Your task to perform on an android device: Open Reddit.com Image 0: 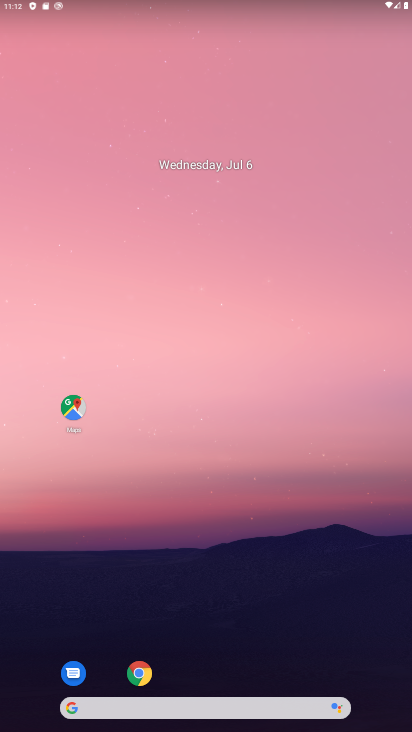
Step 0: drag from (275, 559) to (287, 29)
Your task to perform on an android device: Open Reddit.com Image 1: 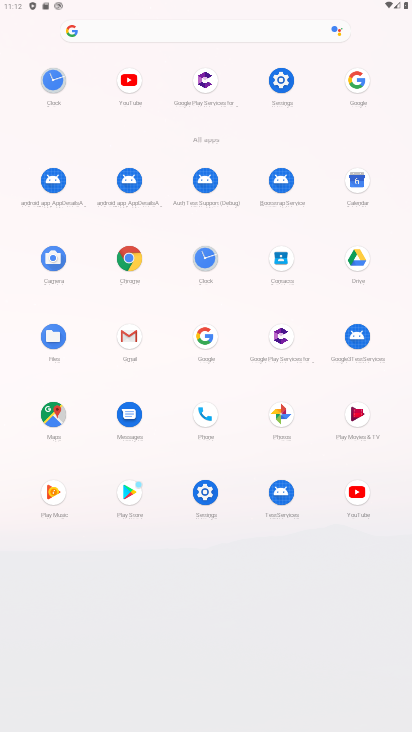
Step 1: click (129, 277)
Your task to perform on an android device: Open Reddit.com Image 2: 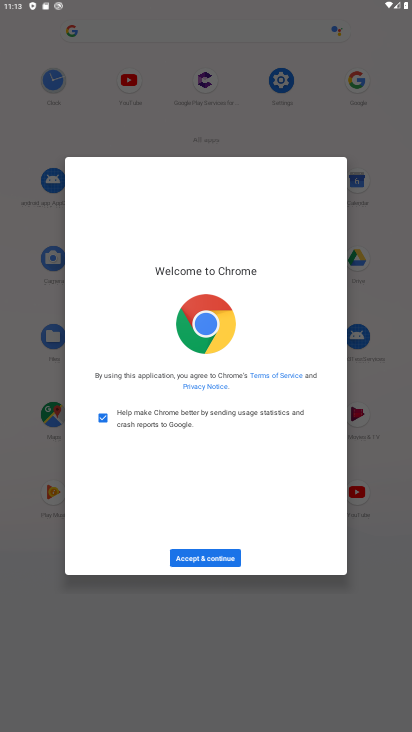
Step 2: click (225, 558)
Your task to perform on an android device: Open Reddit.com Image 3: 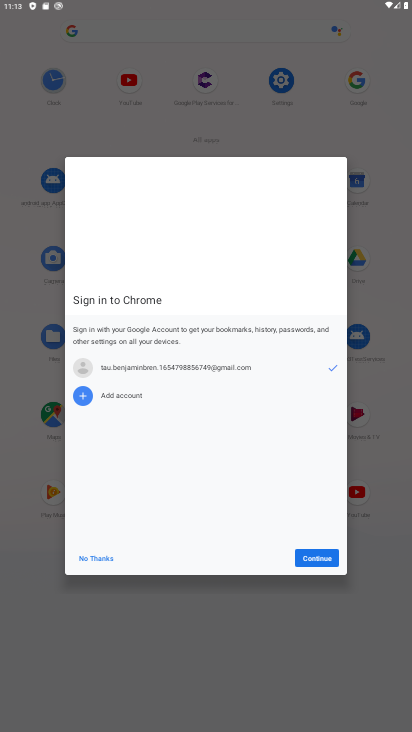
Step 3: click (312, 561)
Your task to perform on an android device: Open Reddit.com Image 4: 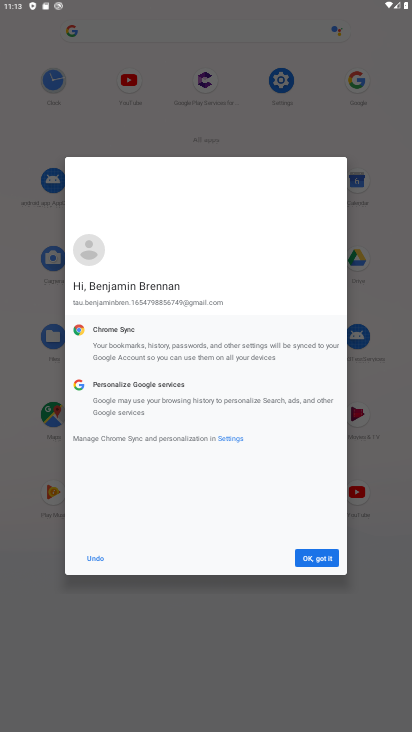
Step 4: click (320, 564)
Your task to perform on an android device: Open Reddit.com Image 5: 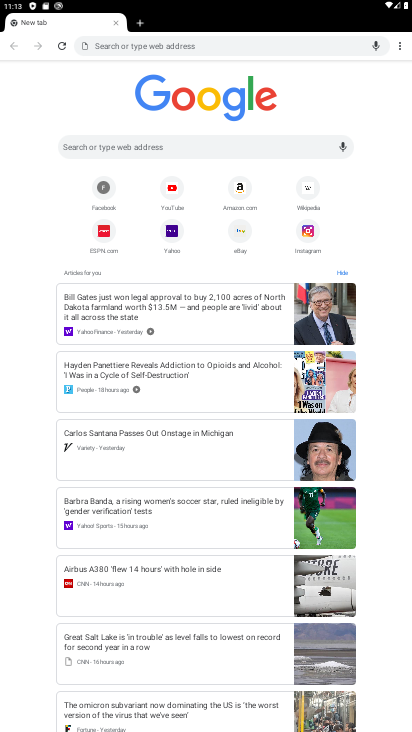
Step 5: click (243, 148)
Your task to perform on an android device: Open Reddit.com Image 6: 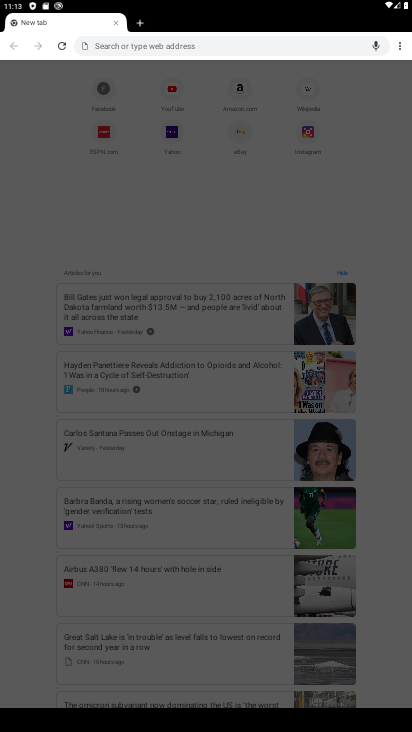
Step 6: type "reddit.com"
Your task to perform on an android device: Open Reddit.com Image 7: 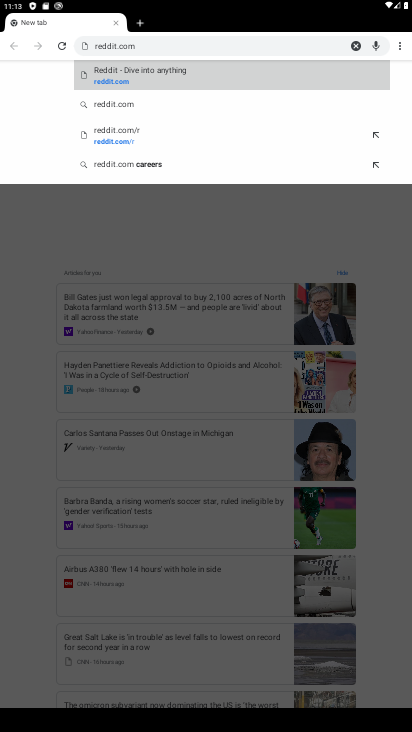
Step 7: click (291, 79)
Your task to perform on an android device: Open Reddit.com Image 8: 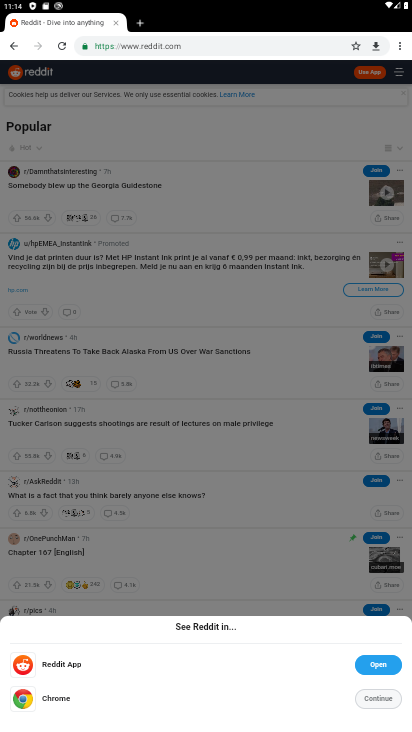
Step 8: click (383, 699)
Your task to perform on an android device: Open Reddit.com Image 9: 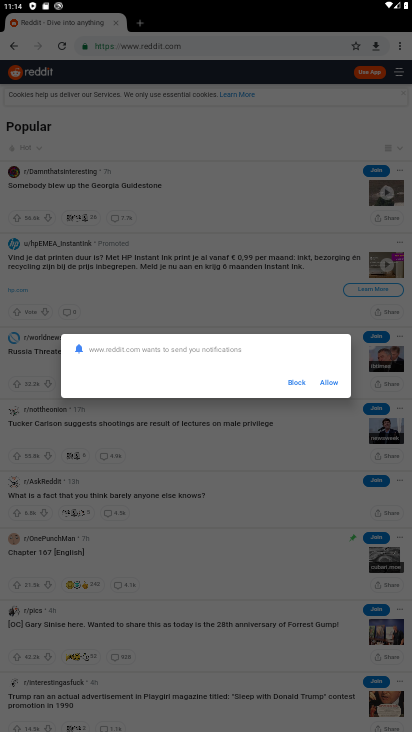
Step 9: task complete